Your task to perform on an android device: toggle javascript in the chrome app Image 0: 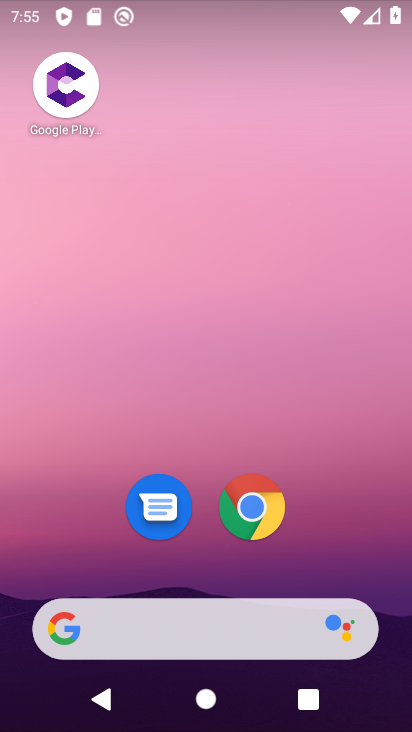
Step 0: click (234, 520)
Your task to perform on an android device: toggle javascript in the chrome app Image 1: 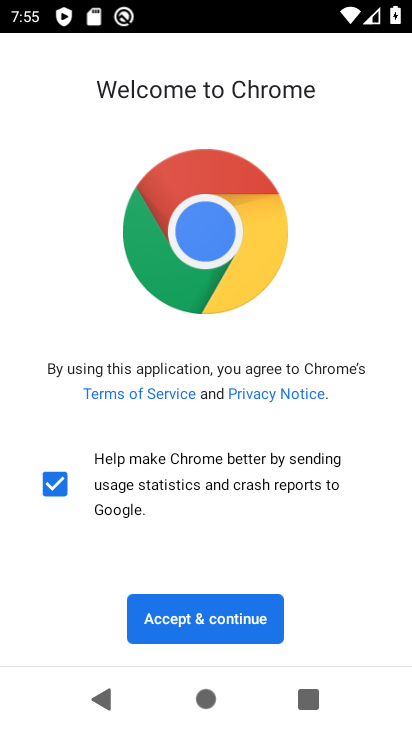
Step 1: click (206, 628)
Your task to perform on an android device: toggle javascript in the chrome app Image 2: 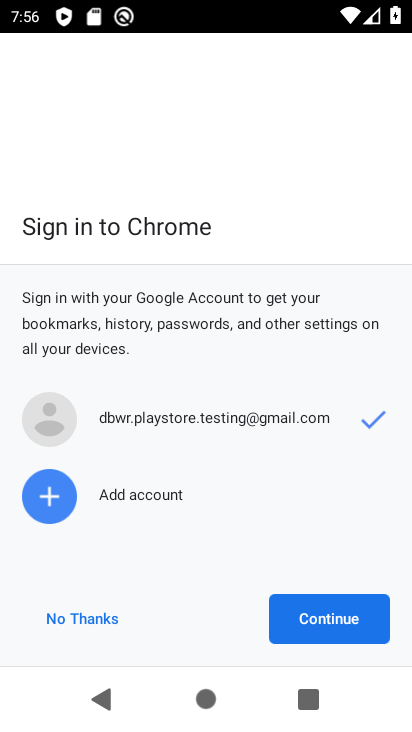
Step 2: click (327, 627)
Your task to perform on an android device: toggle javascript in the chrome app Image 3: 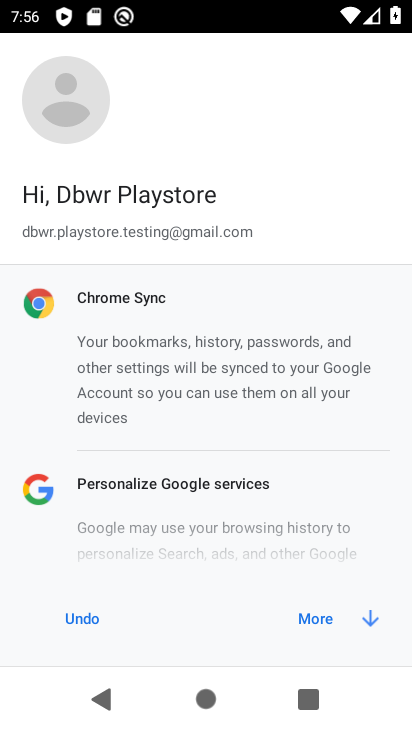
Step 3: click (343, 603)
Your task to perform on an android device: toggle javascript in the chrome app Image 4: 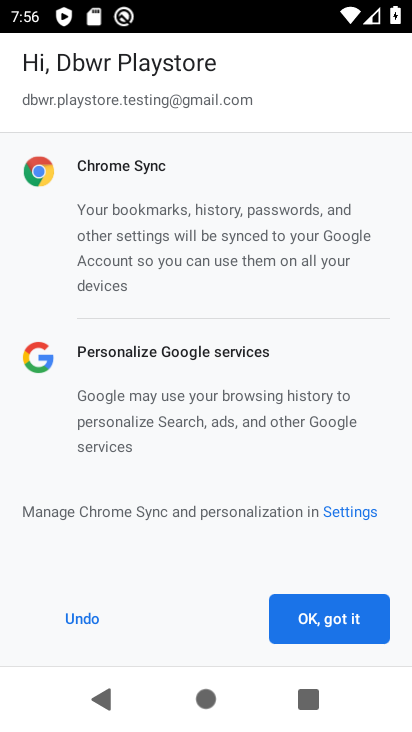
Step 4: click (340, 609)
Your task to perform on an android device: toggle javascript in the chrome app Image 5: 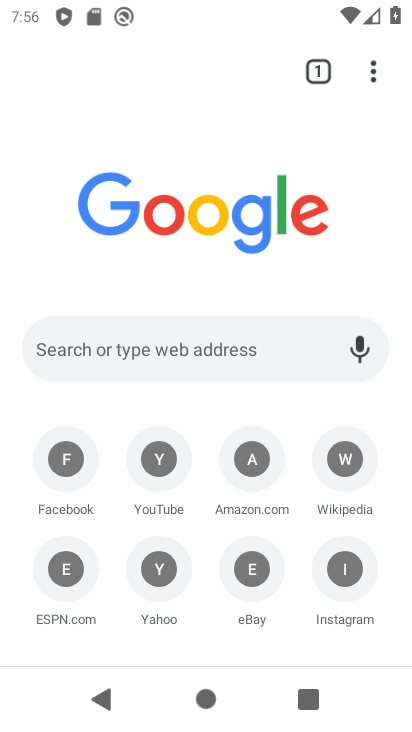
Step 5: click (371, 64)
Your task to perform on an android device: toggle javascript in the chrome app Image 6: 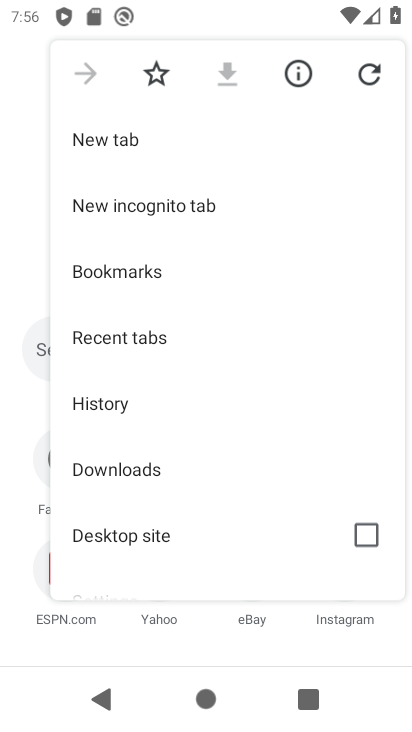
Step 6: drag from (145, 481) to (127, 276)
Your task to perform on an android device: toggle javascript in the chrome app Image 7: 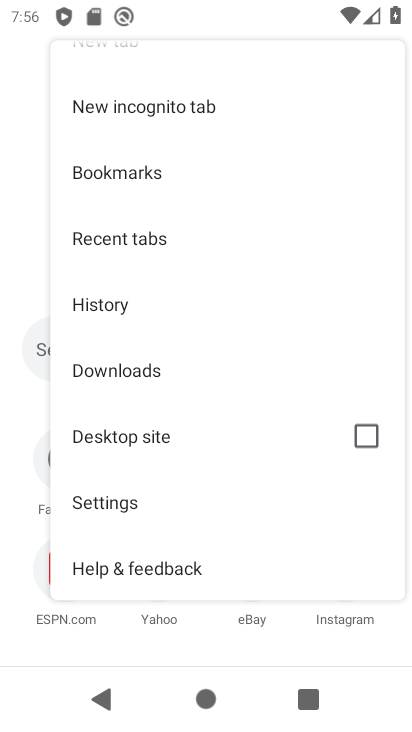
Step 7: click (101, 500)
Your task to perform on an android device: toggle javascript in the chrome app Image 8: 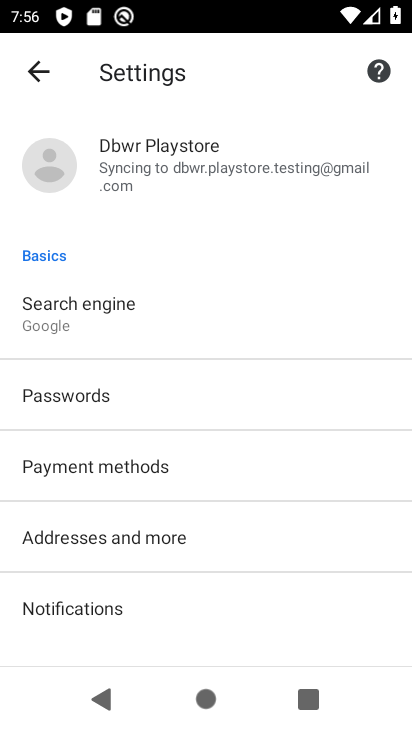
Step 8: drag from (101, 500) to (41, 81)
Your task to perform on an android device: toggle javascript in the chrome app Image 9: 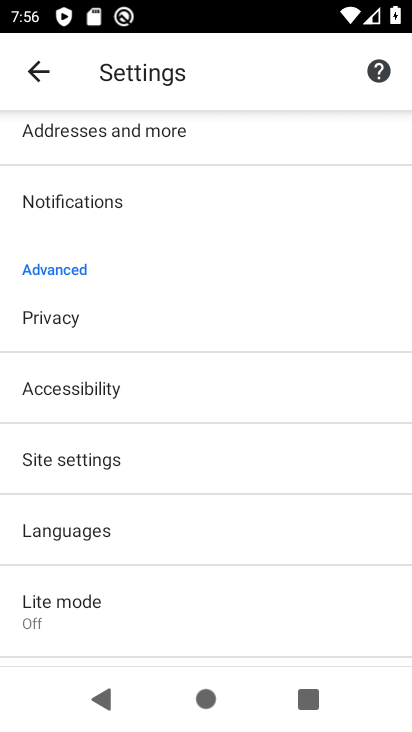
Step 9: click (67, 454)
Your task to perform on an android device: toggle javascript in the chrome app Image 10: 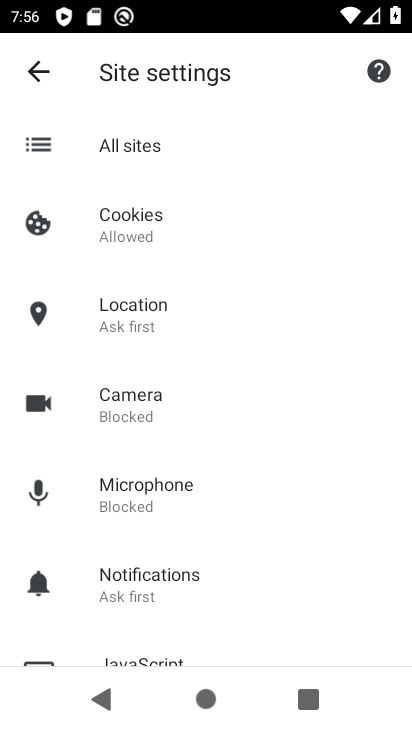
Step 10: drag from (155, 545) to (148, 157)
Your task to perform on an android device: toggle javascript in the chrome app Image 11: 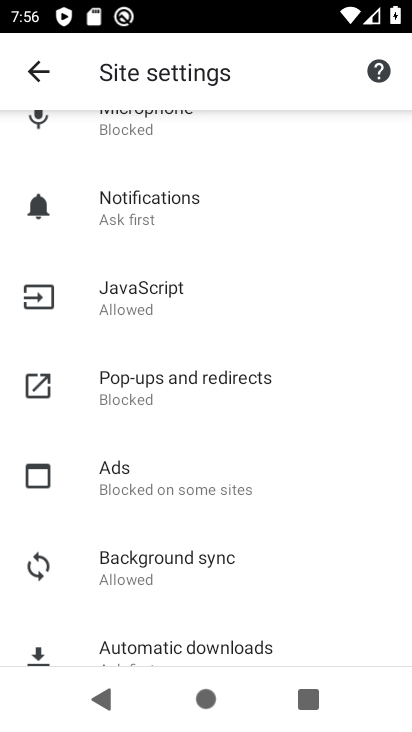
Step 11: click (154, 318)
Your task to perform on an android device: toggle javascript in the chrome app Image 12: 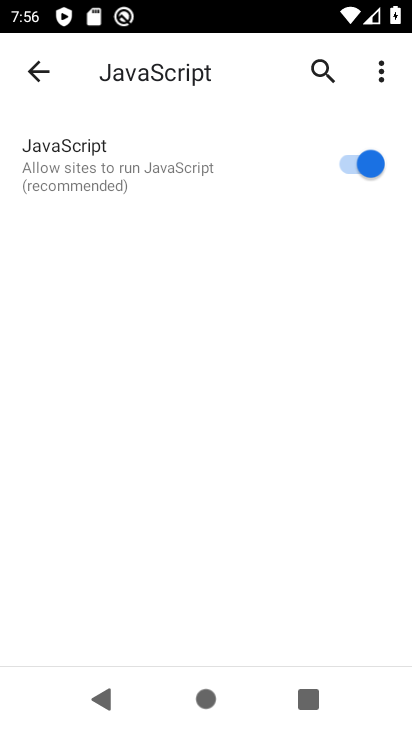
Step 12: click (347, 179)
Your task to perform on an android device: toggle javascript in the chrome app Image 13: 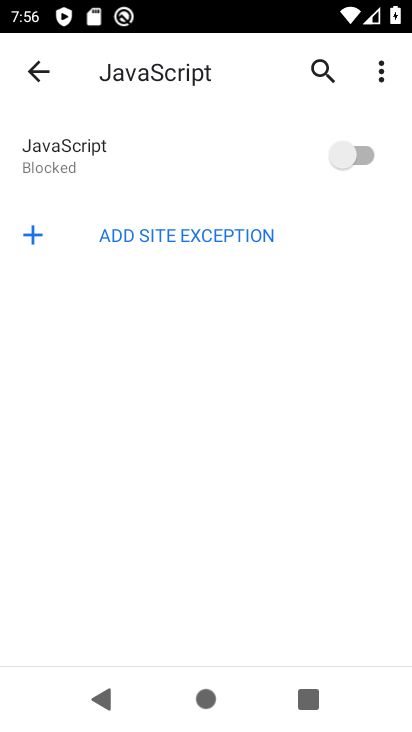
Step 13: task complete